Your task to perform on an android device: open a new tab in the chrome app Image 0: 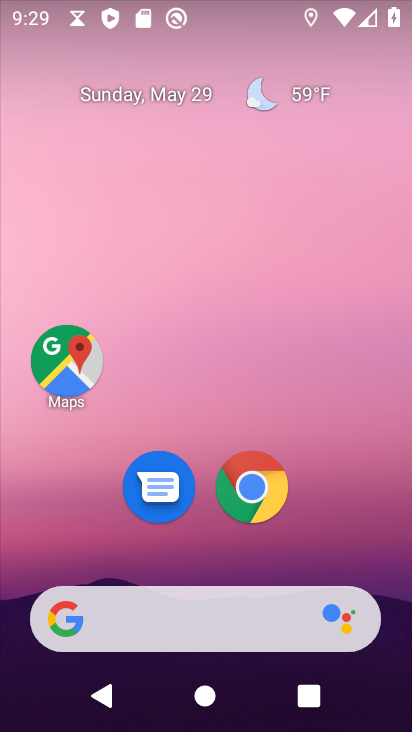
Step 0: click (252, 488)
Your task to perform on an android device: open a new tab in the chrome app Image 1: 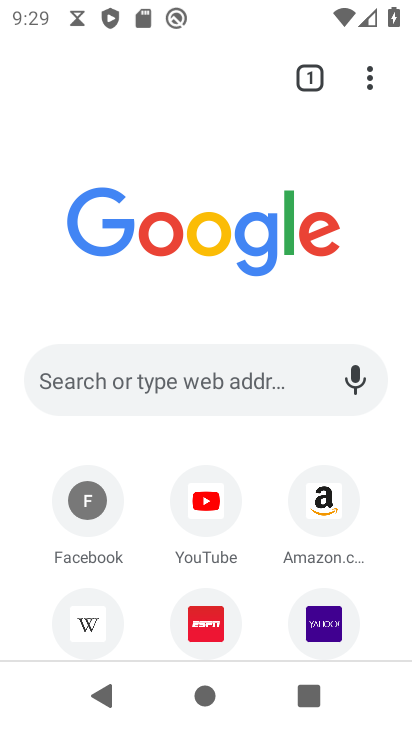
Step 1: click (371, 78)
Your task to perform on an android device: open a new tab in the chrome app Image 2: 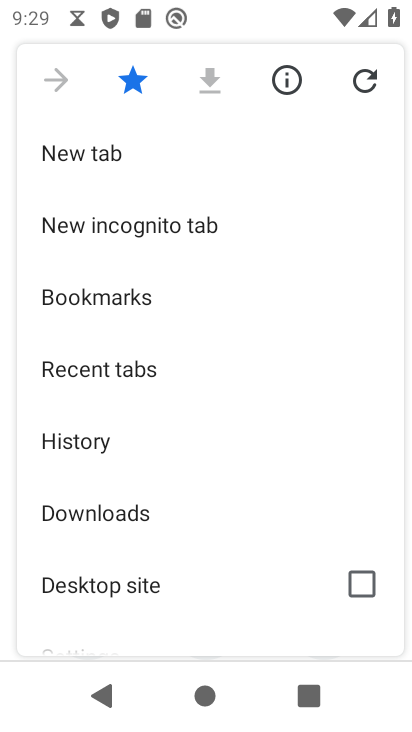
Step 2: drag from (127, 471) to (172, 383)
Your task to perform on an android device: open a new tab in the chrome app Image 3: 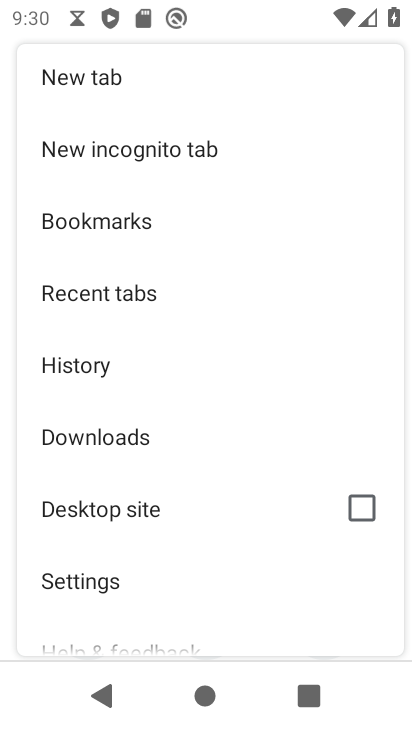
Step 3: drag from (86, 539) to (153, 447)
Your task to perform on an android device: open a new tab in the chrome app Image 4: 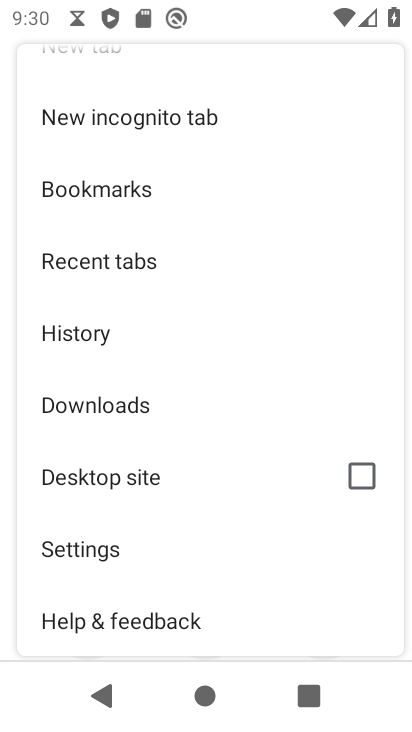
Step 4: drag from (178, 319) to (182, 429)
Your task to perform on an android device: open a new tab in the chrome app Image 5: 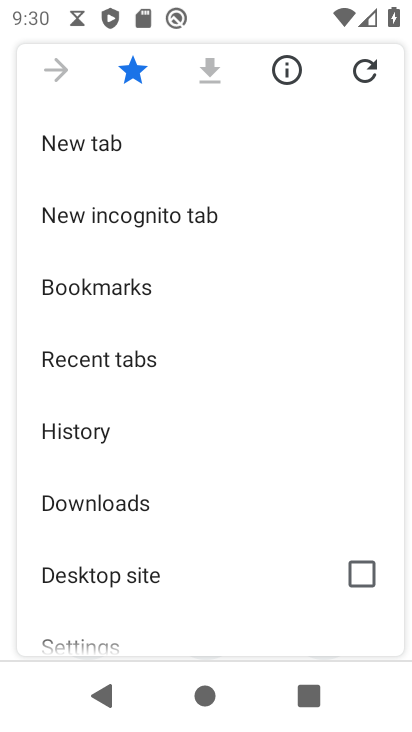
Step 5: click (79, 137)
Your task to perform on an android device: open a new tab in the chrome app Image 6: 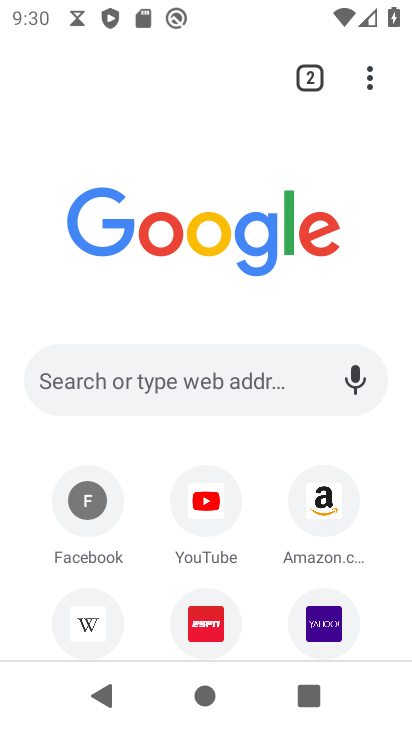
Step 6: task complete